Your task to perform on an android device: open wifi settings Image 0: 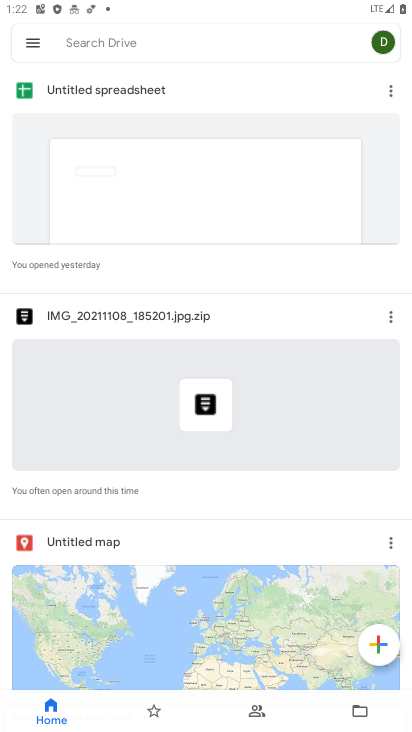
Step 0: press home button
Your task to perform on an android device: open wifi settings Image 1: 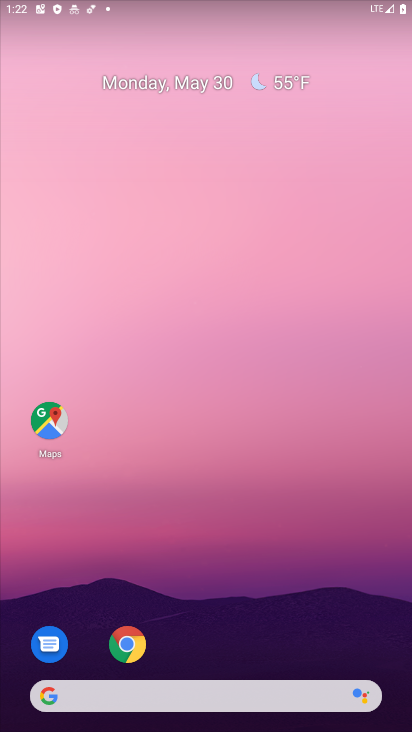
Step 1: drag from (241, 627) to (204, 62)
Your task to perform on an android device: open wifi settings Image 2: 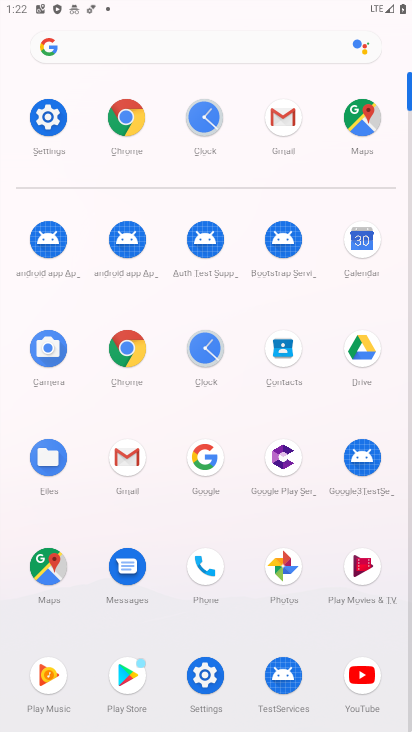
Step 2: click (37, 136)
Your task to perform on an android device: open wifi settings Image 3: 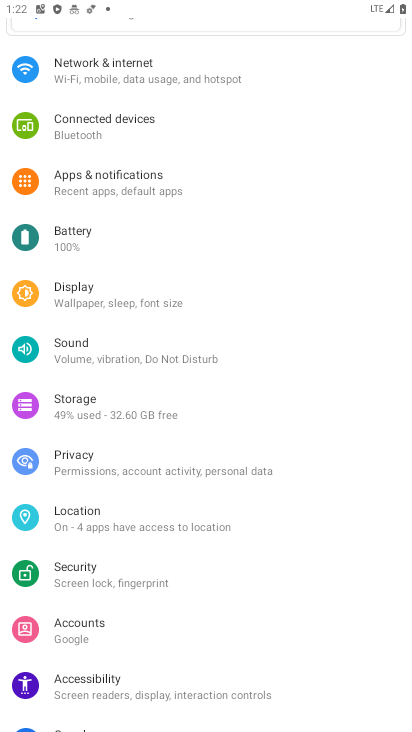
Step 3: click (159, 98)
Your task to perform on an android device: open wifi settings Image 4: 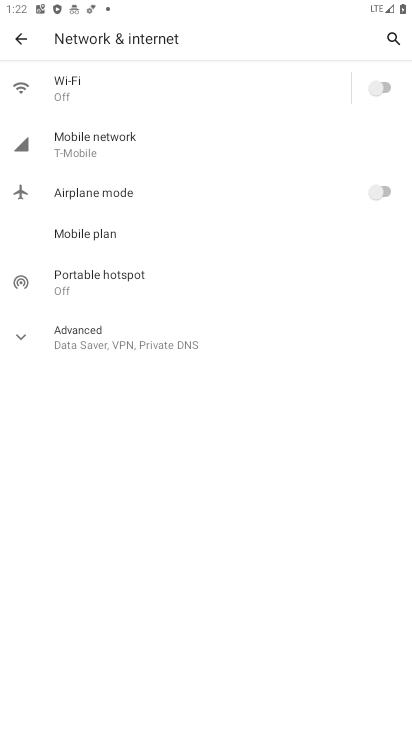
Step 4: click (369, 87)
Your task to perform on an android device: open wifi settings Image 5: 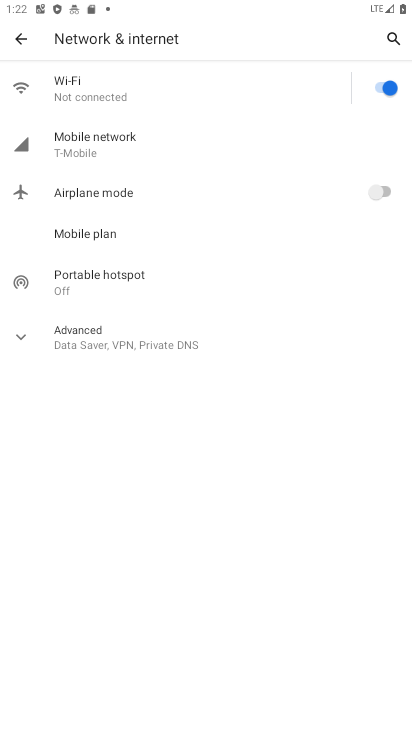
Step 5: task complete